Your task to perform on an android device: open a bookmark in the chrome app Image 0: 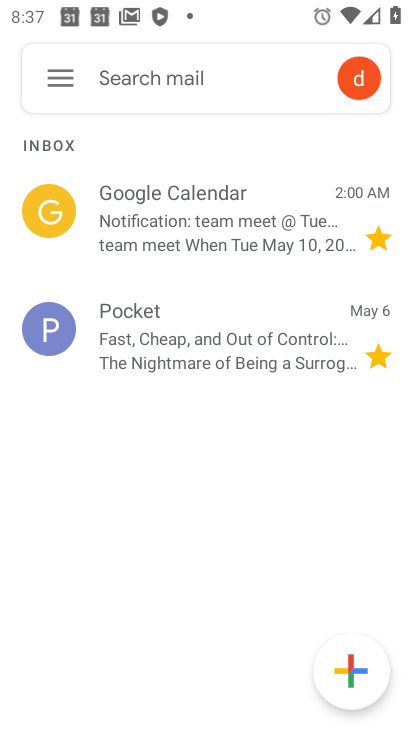
Step 0: press home button
Your task to perform on an android device: open a bookmark in the chrome app Image 1: 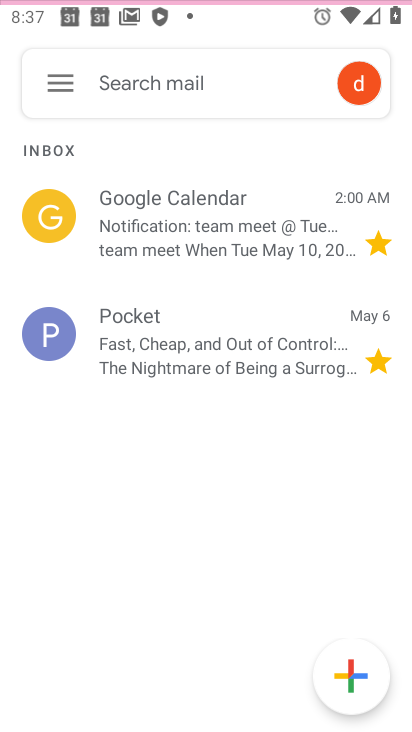
Step 1: press home button
Your task to perform on an android device: open a bookmark in the chrome app Image 2: 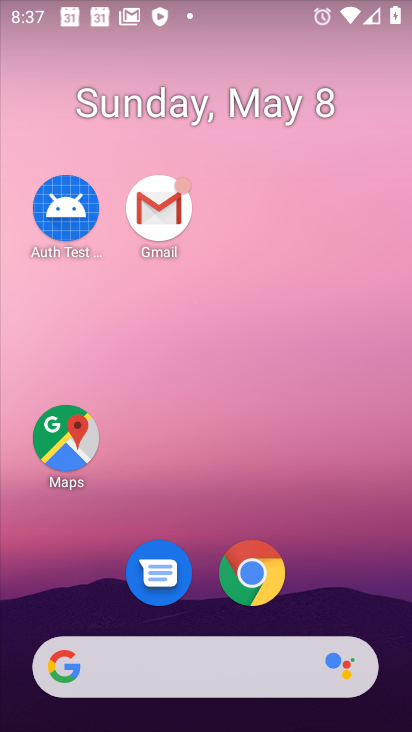
Step 2: drag from (290, 504) to (176, 33)
Your task to perform on an android device: open a bookmark in the chrome app Image 3: 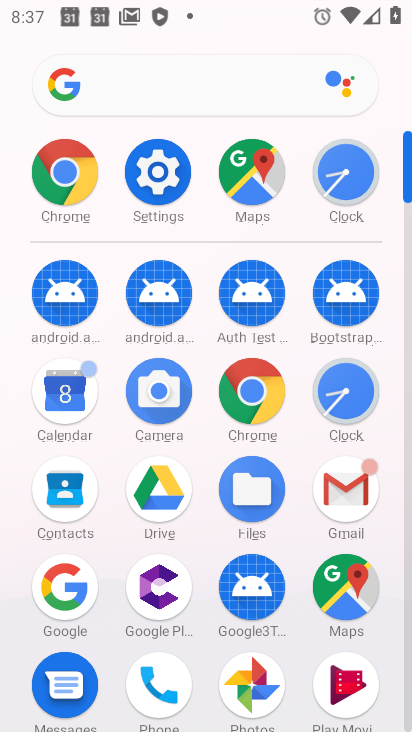
Step 3: click (252, 405)
Your task to perform on an android device: open a bookmark in the chrome app Image 4: 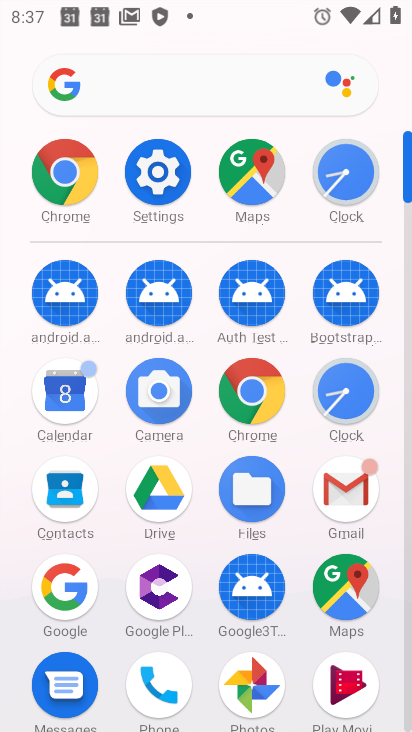
Step 4: click (255, 402)
Your task to perform on an android device: open a bookmark in the chrome app Image 5: 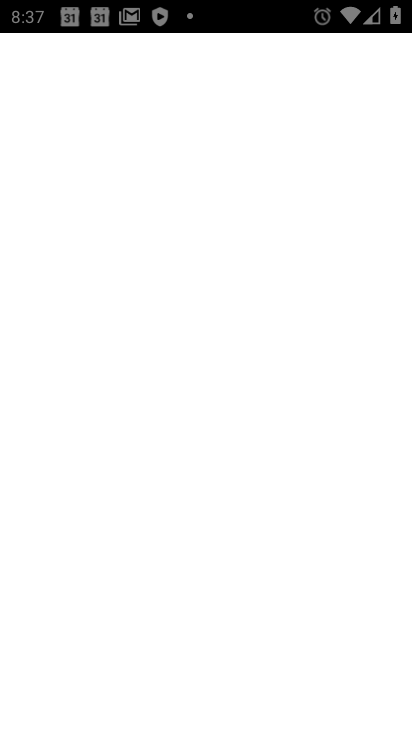
Step 5: click (255, 402)
Your task to perform on an android device: open a bookmark in the chrome app Image 6: 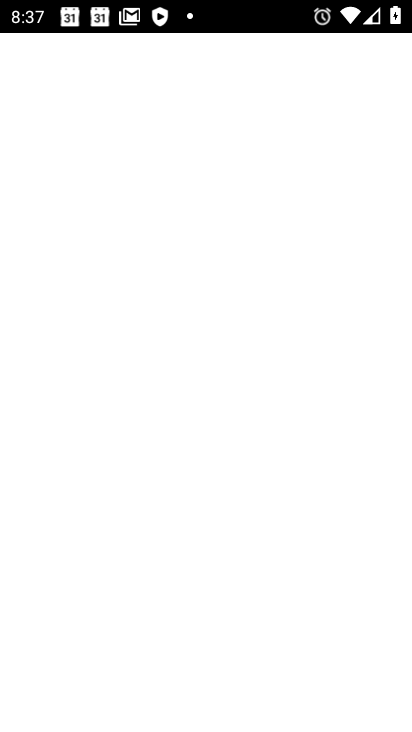
Step 6: click (256, 402)
Your task to perform on an android device: open a bookmark in the chrome app Image 7: 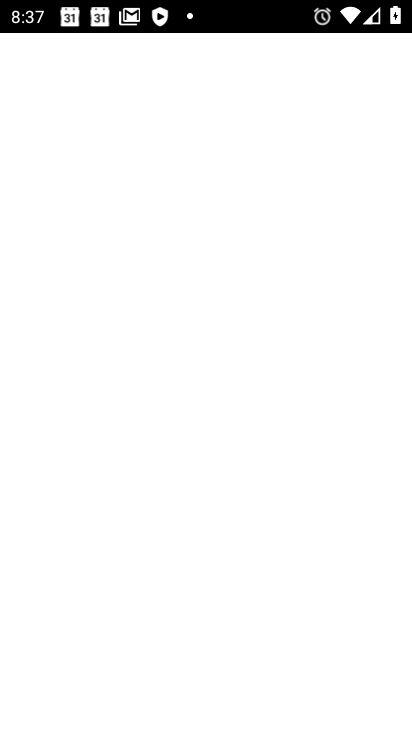
Step 7: click (256, 402)
Your task to perform on an android device: open a bookmark in the chrome app Image 8: 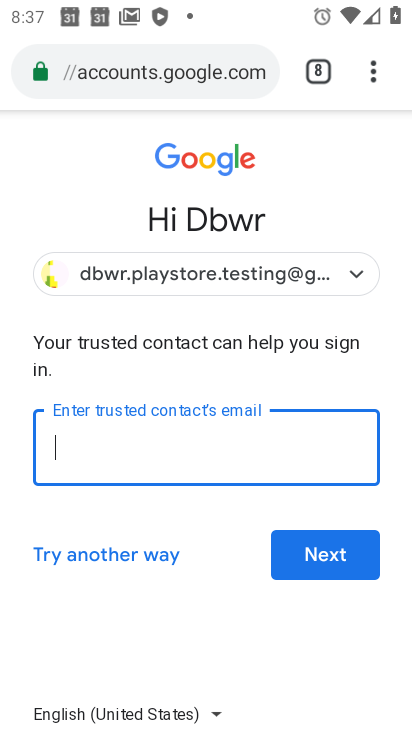
Step 8: drag from (375, 73) to (107, 278)
Your task to perform on an android device: open a bookmark in the chrome app Image 9: 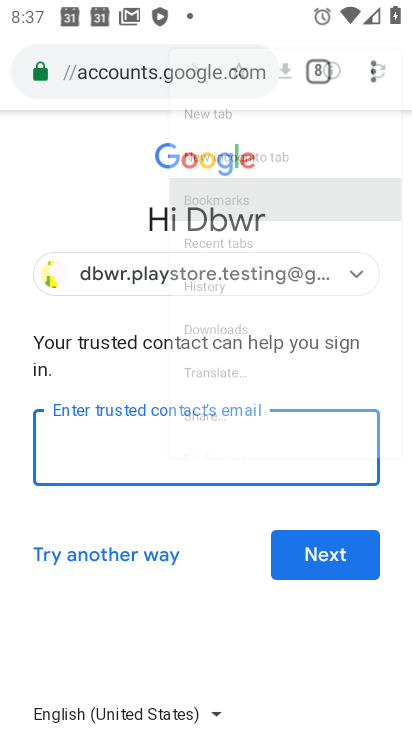
Step 9: click (107, 278)
Your task to perform on an android device: open a bookmark in the chrome app Image 10: 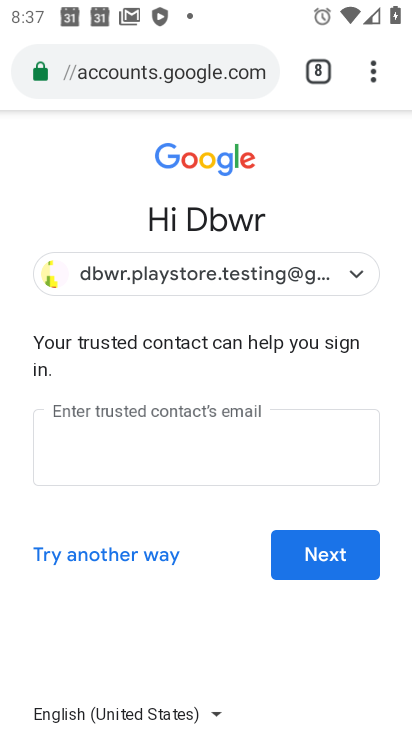
Step 10: click (105, 277)
Your task to perform on an android device: open a bookmark in the chrome app Image 11: 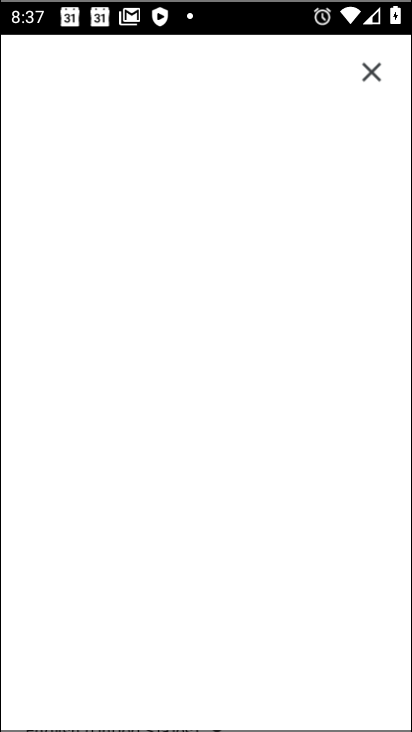
Step 11: click (97, 276)
Your task to perform on an android device: open a bookmark in the chrome app Image 12: 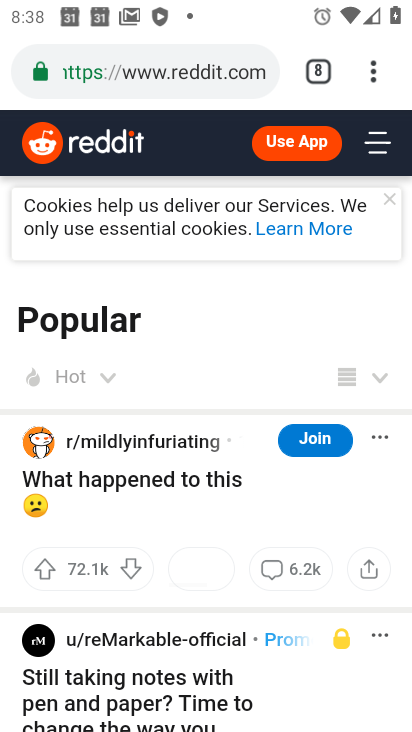
Step 12: click (372, 69)
Your task to perform on an android device: open a bookmark in the chrome app Image 13: 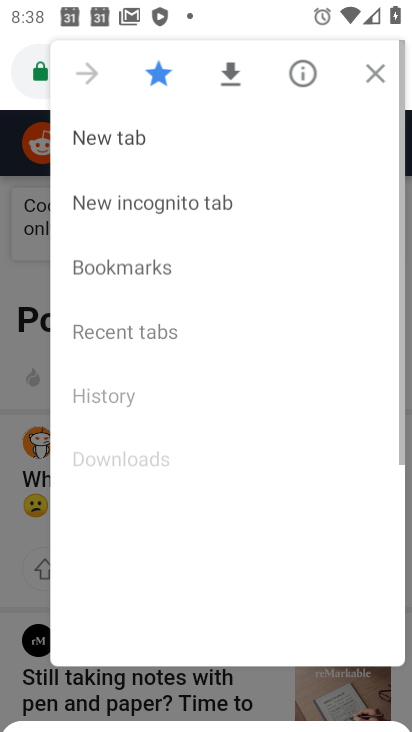
Step 13: click (372, 69)
Your task to perform on an android device: open a bookmark in the chrome app Image 14: 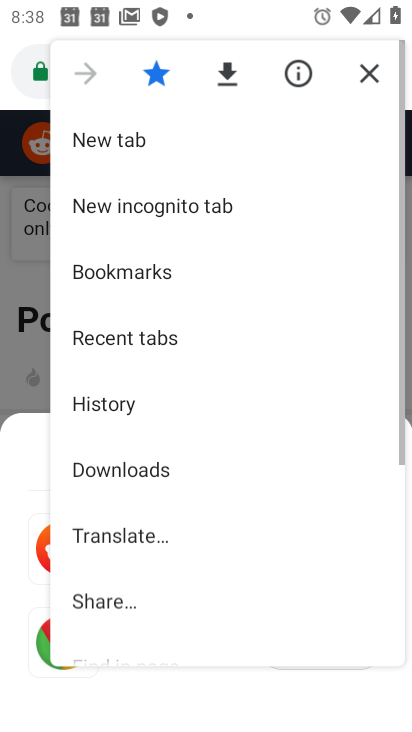
Step 14: click (372, 69)
Your task to perform on an android device: open a bookmark in the chrome app Image 15: 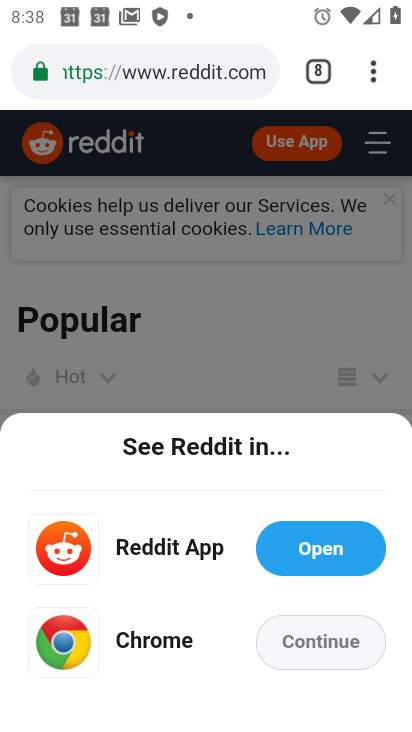
Step 15: click (372, 69)
Your task to perform on an android device: open a bookmark in the chrome app Image 16: 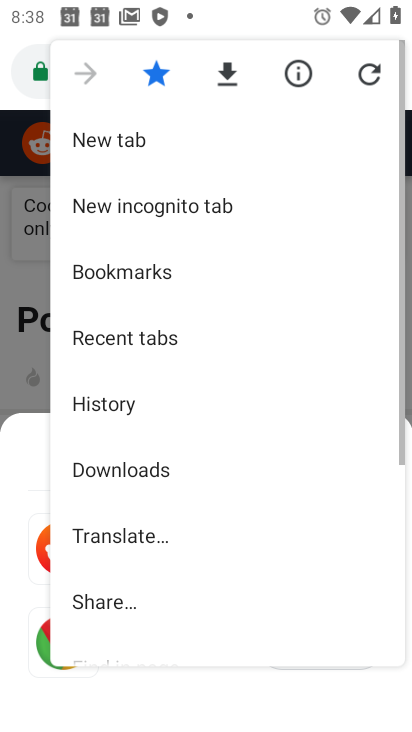
Step 16: click (142, 265)
Your task to perform on an android device: open a bookmark in the chrome app Image 17: 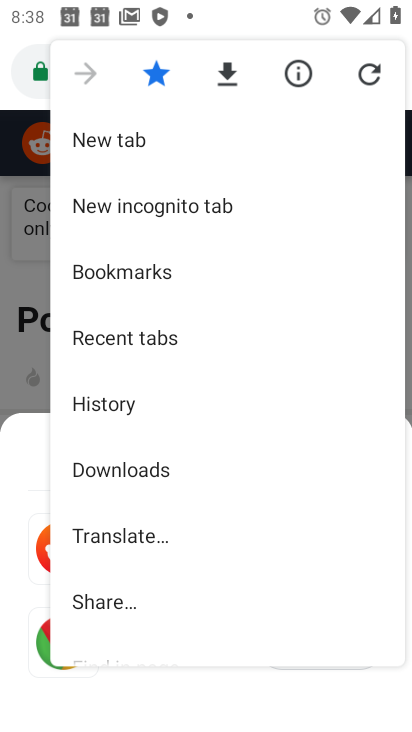
Step 17: click (142, 265)
Your task to perform on an android device: open a bookmark in the chrome app Image 18: 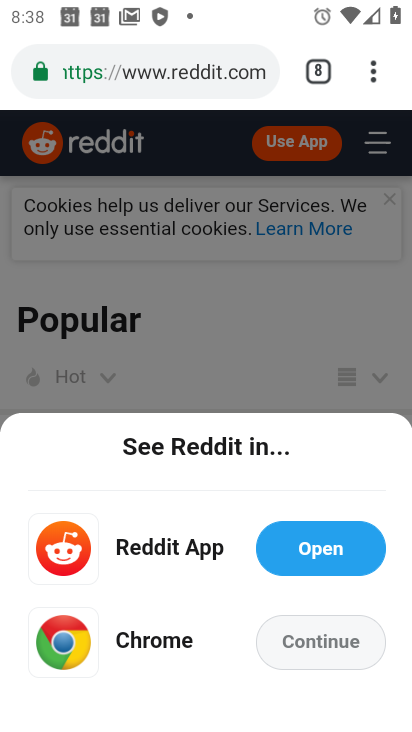
Step 18: click (142, 265)
Your task to perform on an android device: open a bookmark in the chrome app Image 19: 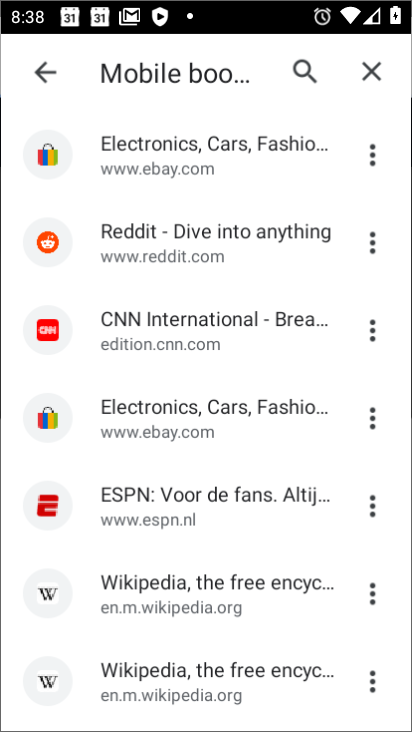
Step 19: click (142, 265)
Your task to perform on an android device: open a bookmark in the chrome app Image 20: 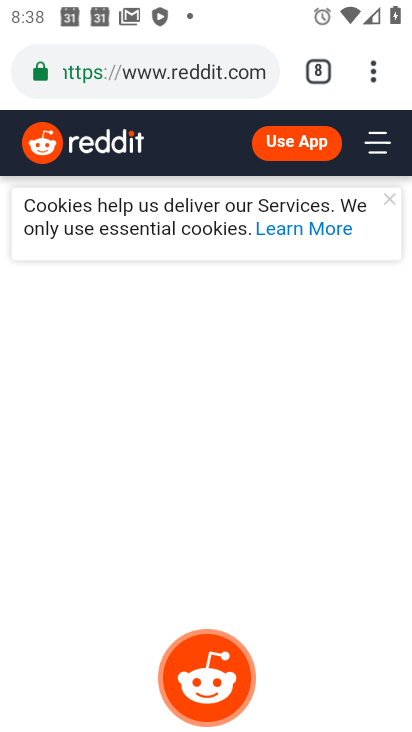
Step 20: task complete